Your task to perform on an android device: open app "Expedia: Hotels, Flights & Car" Image 0: 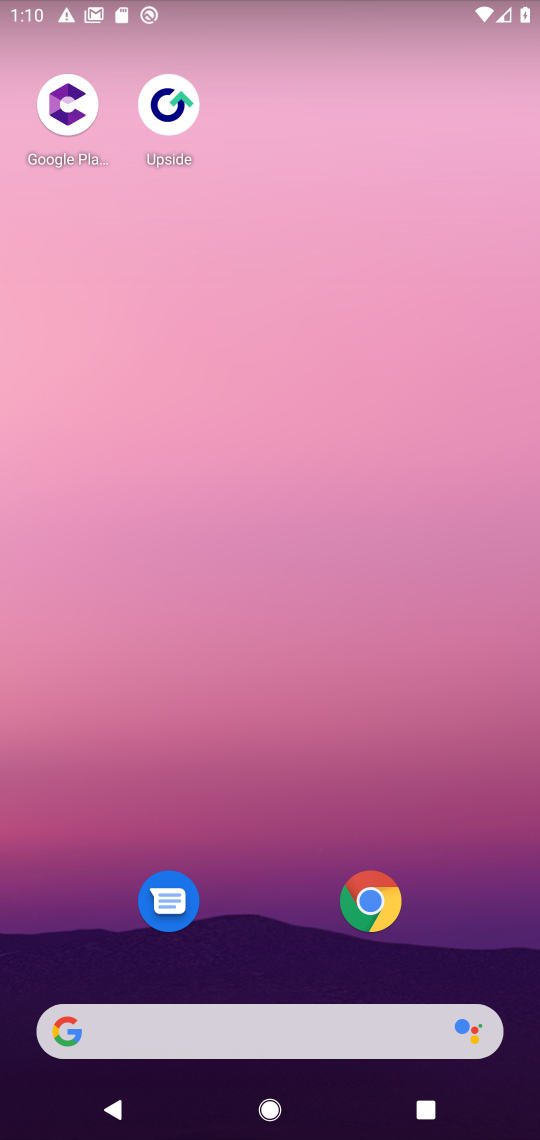
Step 0: drag from (295, 949) to (327, 0)
Your task to perform on an android device: open app "Expedia: Hotels, Flights & Car" Image 1: 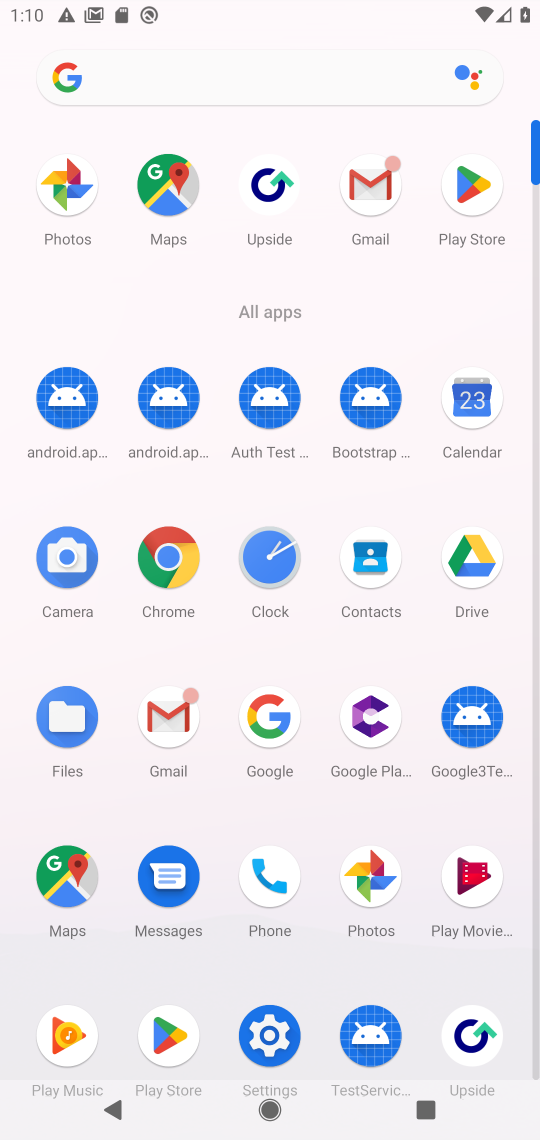
Step 1: click (470, 197)
Your task to perform on an android device: open app "Expedia: Hotels, Flights & Car" Image 2: 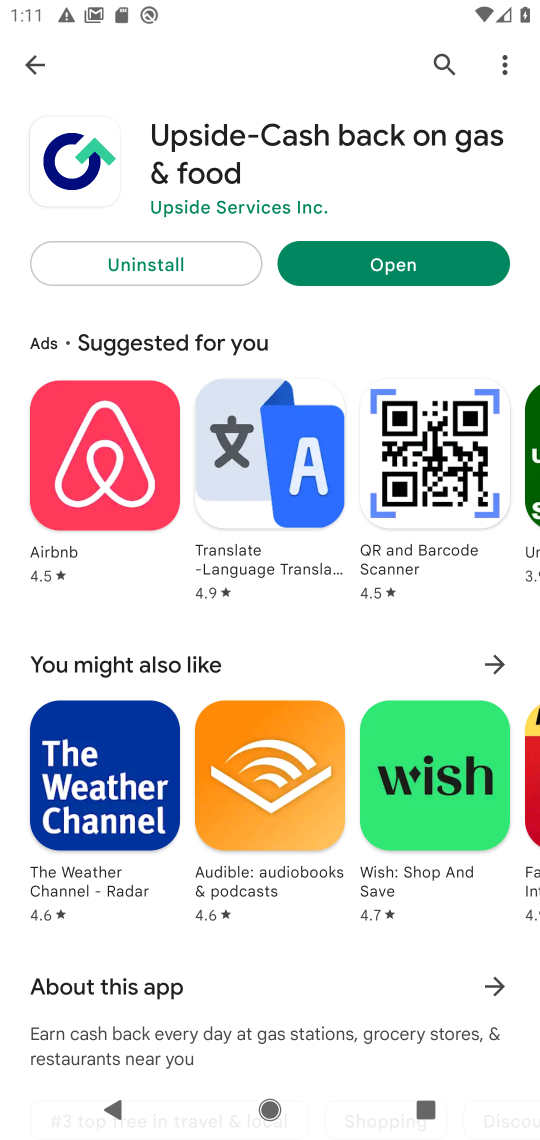
Step 2: click (435, 67)
Your task to perform on an android device: open app "Expedia: Hotels, Flights & Car" Image 3: 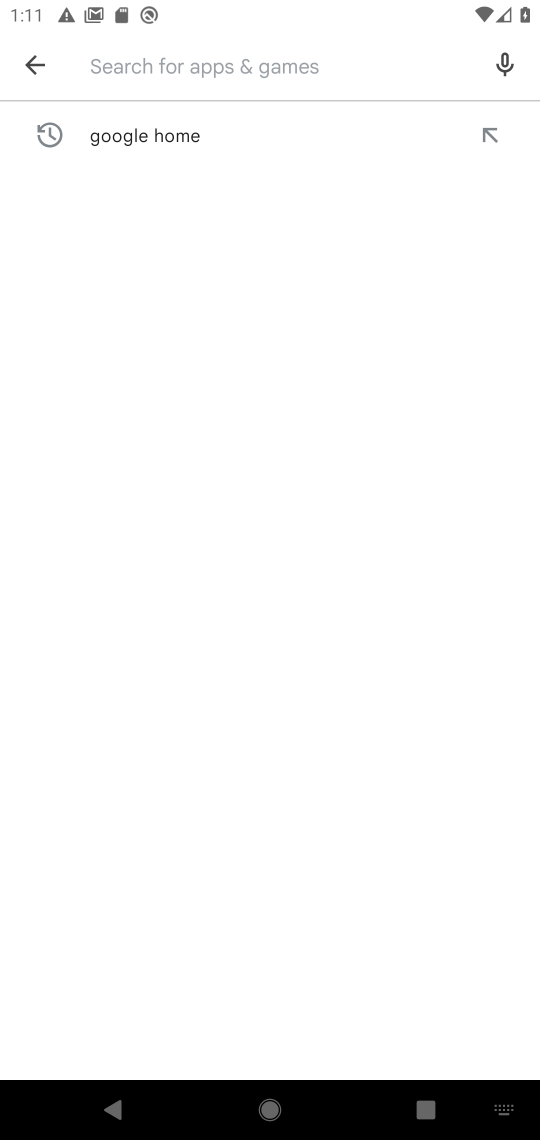
Step 3: type "Expedia: Hotels, Flights & Car"
Your task to perform on an android device: open app "Expedia: Hotels, Flights & Car" Image 4: 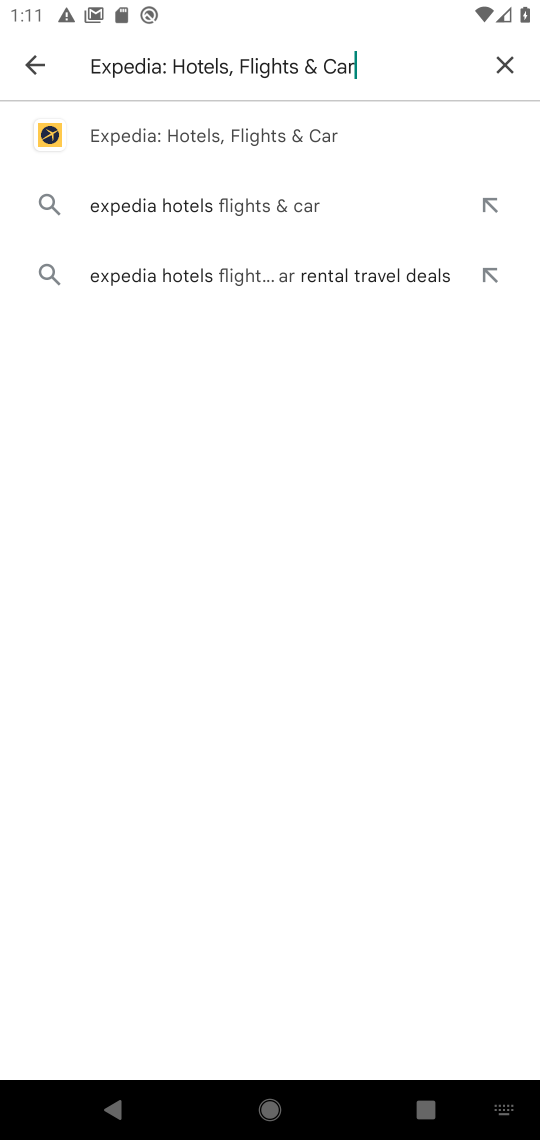
Step 4: click (200, 120)
Your task to perform on an android device: open app "Expedia: Hotels, Flights & Car" Image 5: 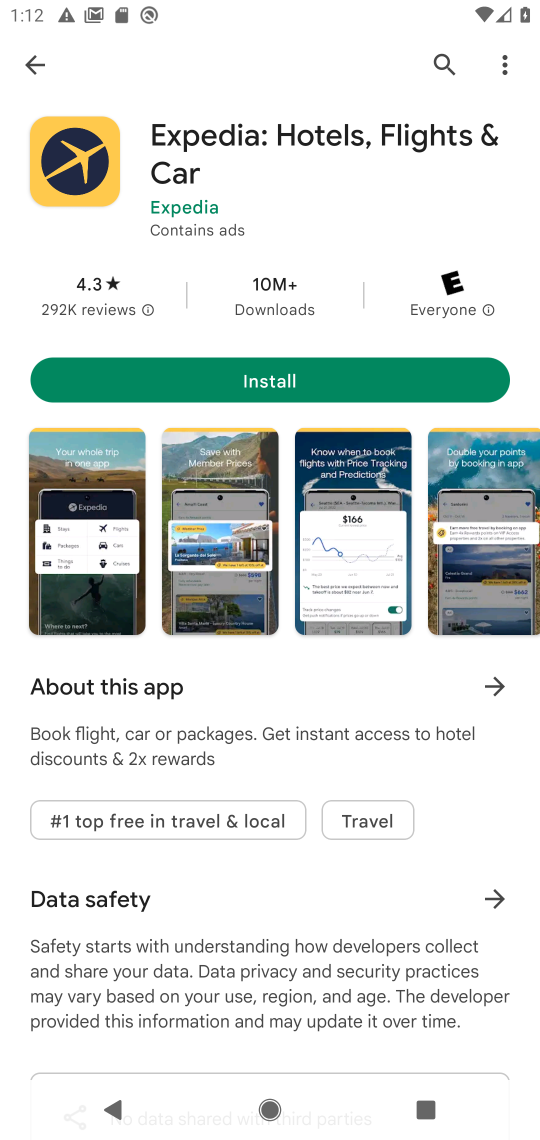
Step 5: task complete